Your task to perform on an android device: Go to Reddit.com Image 0: 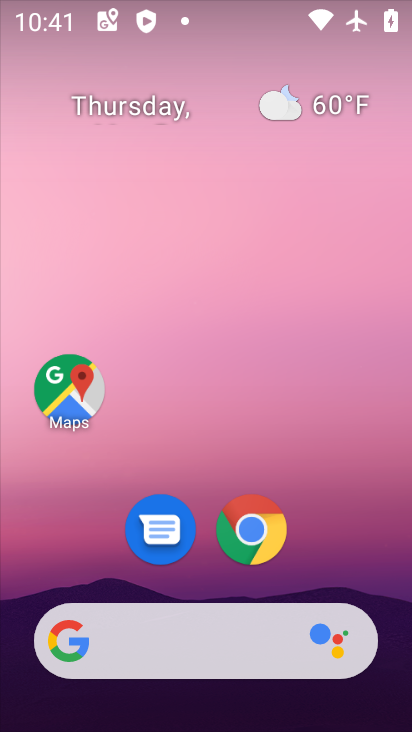
Step 0: drag from (376, 696) to (229, 152)
Your task to perform on an android device: Go to Reddit.com Image 1: 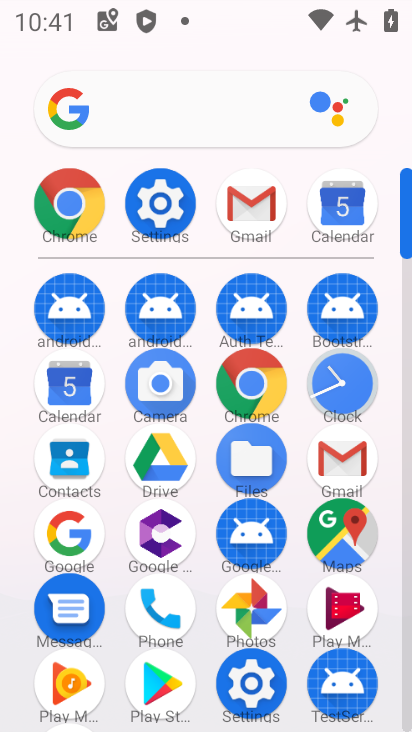
Step 1: click (68, 196)
Your task to perform on an android device: Go to Reddit.com Image 2: 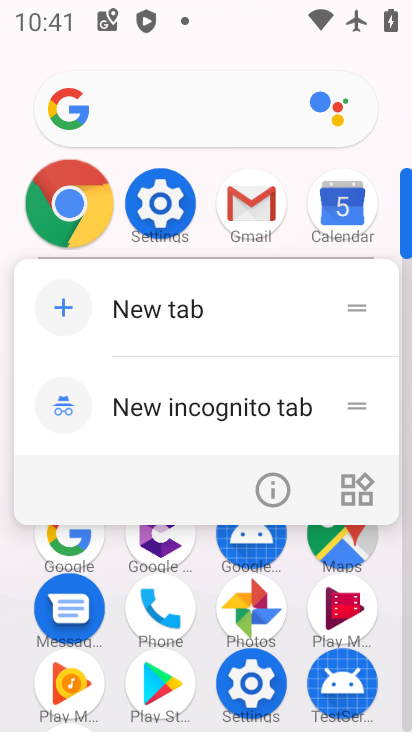
Step 2: click (69, 196)
Your task to perform on an android device: Go to Reddit.com Image 3: 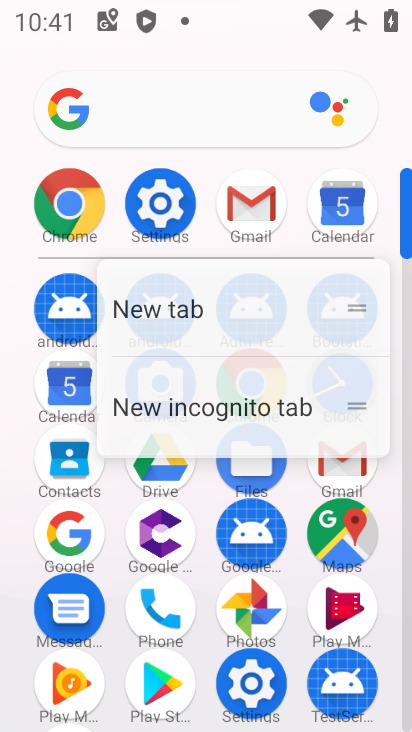
Step 3: click (69, 196)
Your task to perform on an android device: Go to Reddit.com Image 4: 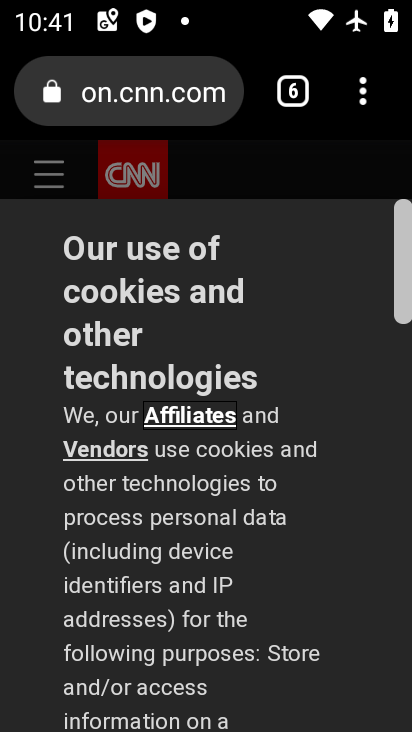
Step 4: drag from (359, 89) to (119, 186)
Your task to perform on an android device: Go to Reddit.com Image 5: 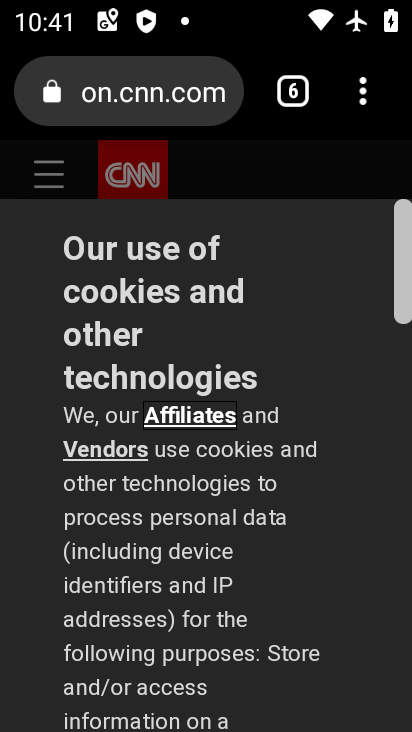
Step 5: click (119, 186)
Your task to perform on an android device: Go to Reddit.com Image 6: 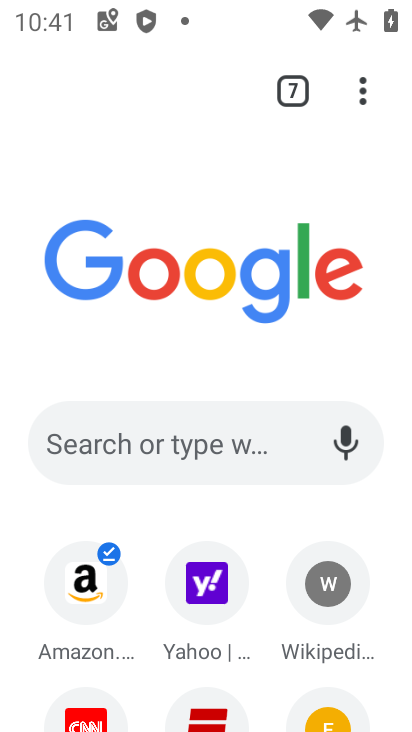
Step 6: drag from (257, 628) to (164, 166)
Your task to perform on an android device: Go to Reddit.com Image 7: 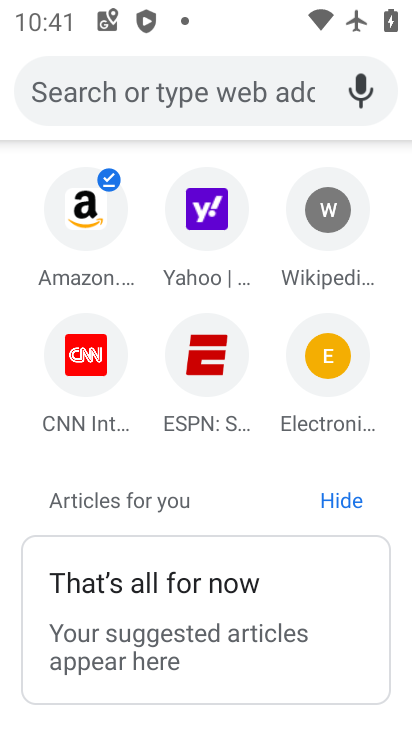
Step 7: drag from (274, 543) to (234, 214)
Your task to perform on an android device: Go to Reddit.com Image 8: 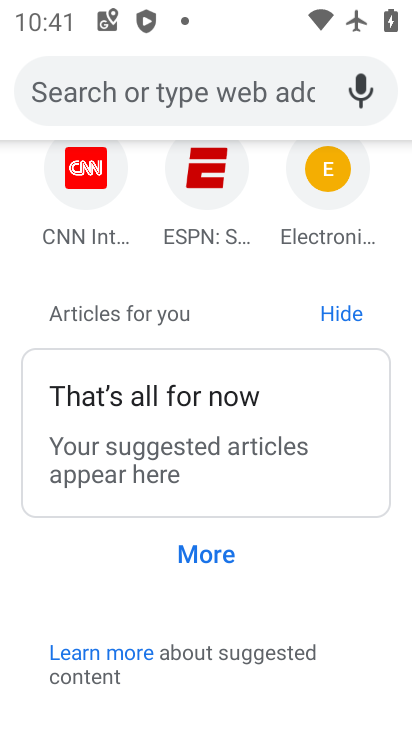
Step 8: drag from (233, 251) to (275, 557)
Your task to perform on an android device: Go to Reddit.com Image 9: 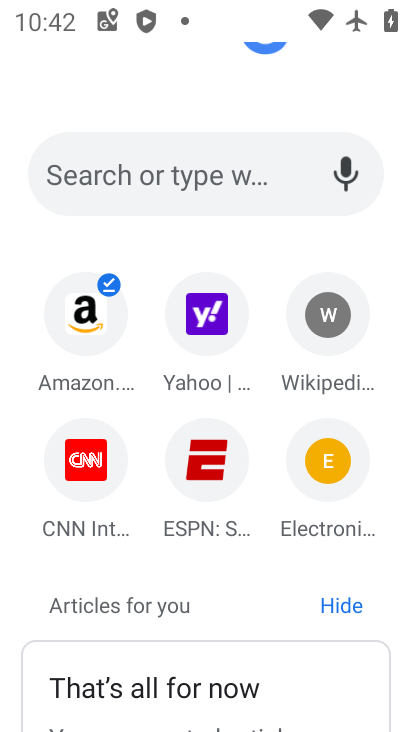
Step 9: click (78, 173)
Your task to perform on an android device: Go to Reddit.com Image 10: 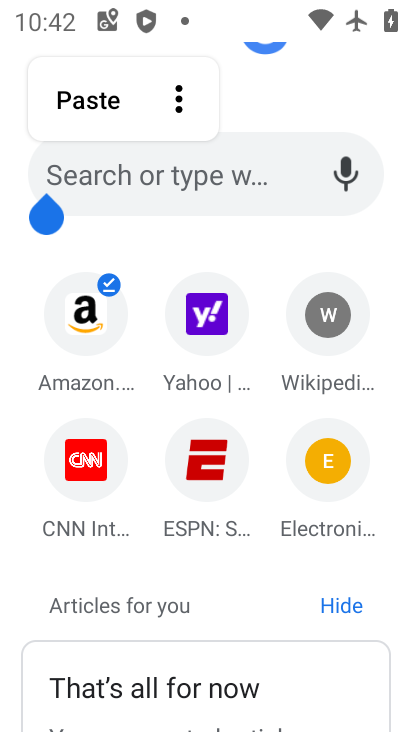
Step 10: click (93, 167)
Your task to perform on an android device: Go to Reddit.com Image 11: 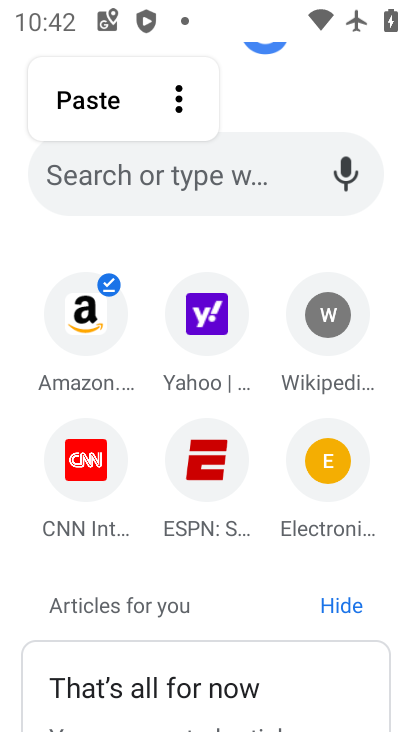
Step 11: type "www.reddit.com"
Your task to perform on an android device: Go to Reddit.com Image 12: 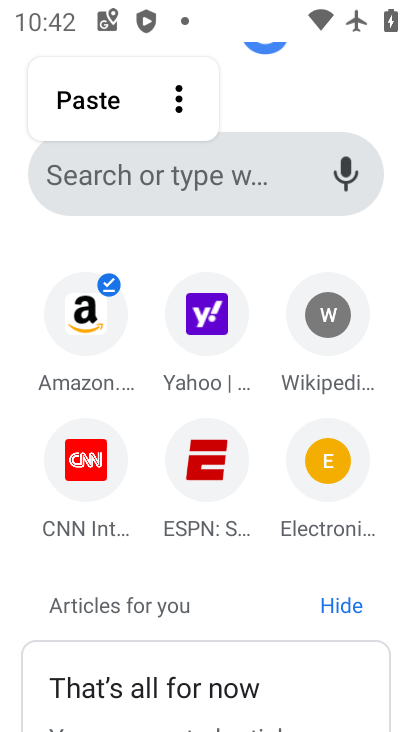
Step 12: click (121, 165)
Your task to perform on an android device: Go to Reddit.com Image 13: 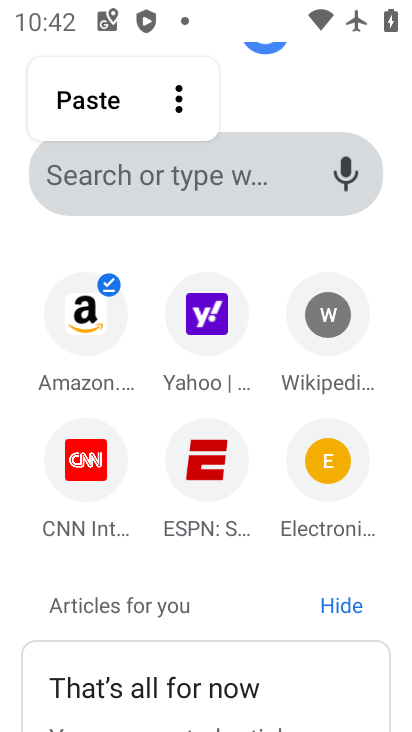
Step 13: click (121, 166)
Your task to perform on an android device: Go to Reddit.com Image 14: 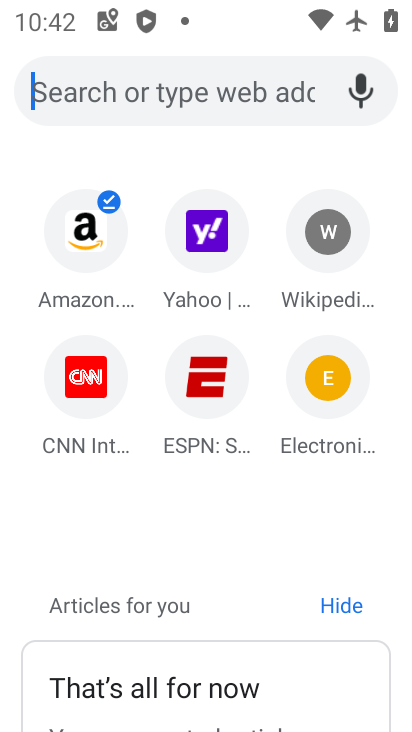
Step 14: click (121, 167)
Your task to perform on an android device: Go to Reddit.com Image 15: 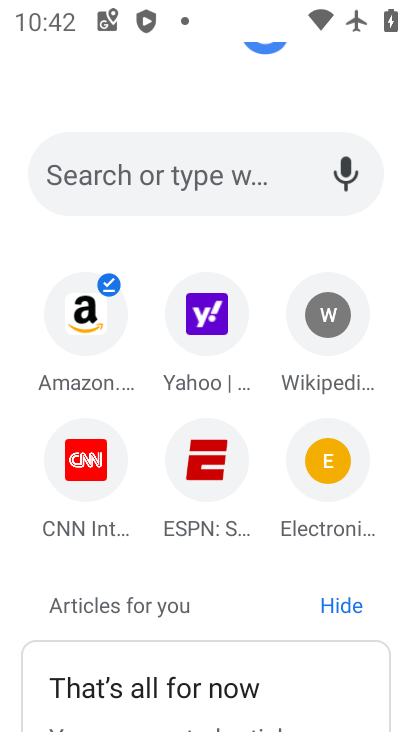
Step 15: type "reddit.com"
Your task to perform on an android device: Go to Reddit.com Image 16: 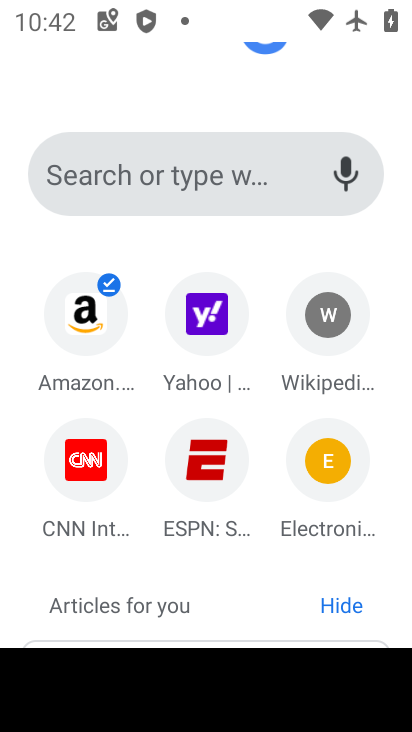
Step 16: click (78, 177)
Your task to perform on an android device: Go to Reddit.com Image 17: 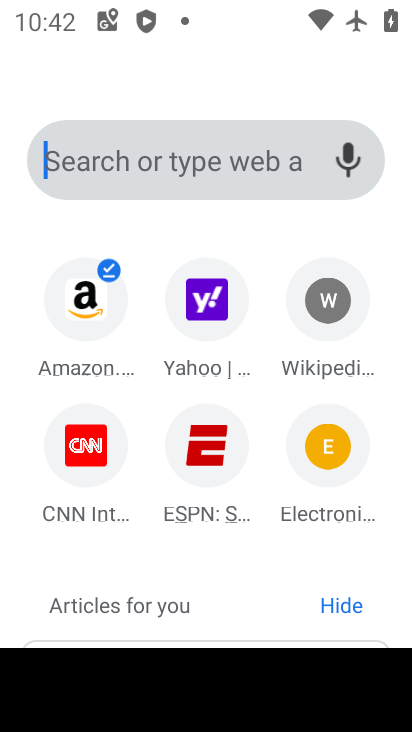
Step 17: click (80, 178)
Your task to perform on an android device: Go to Reddit.com Image 18: 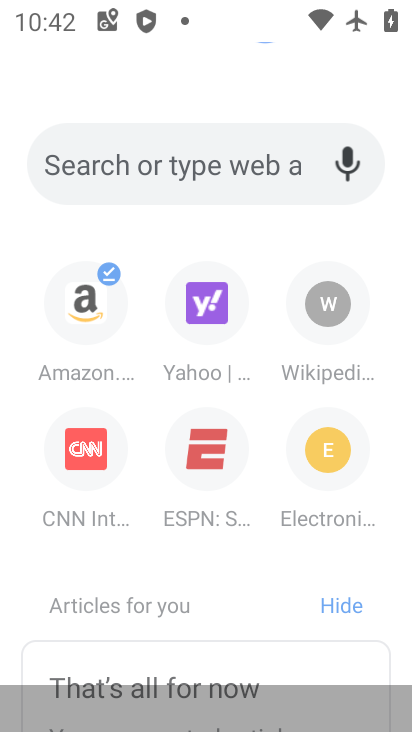
Step 18: click (82, 178)
Your task to perform on an android device: Go to Reddit.com Image 19: 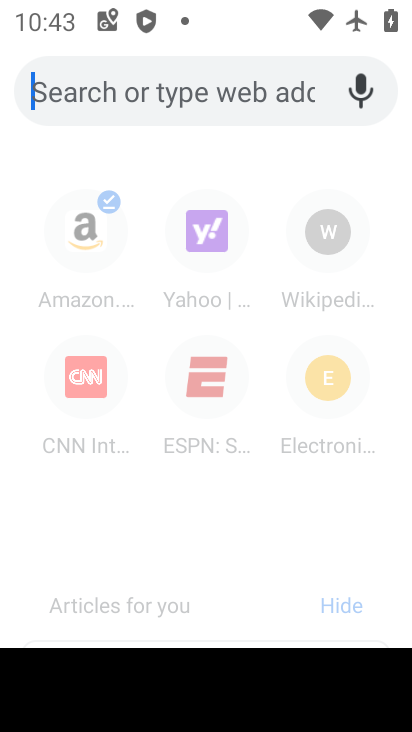
Step 19: type "www.reddit.com"
Your task to perform on an android device: Go to Reddit.com Image 20: 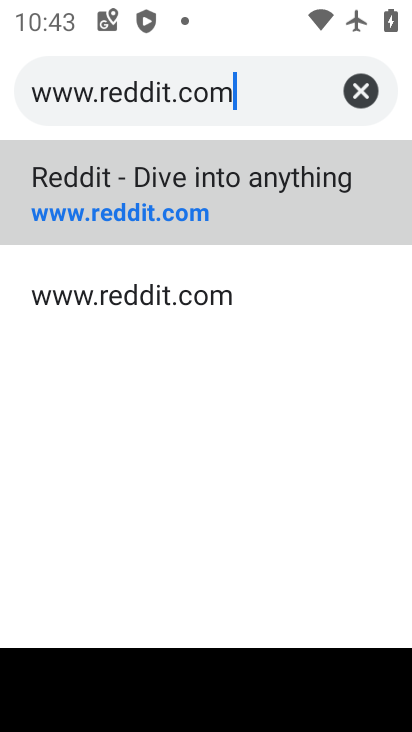
Step 20: click (151, 219)
Your task to perform on an android device: Go to Reddit.com Image 21: 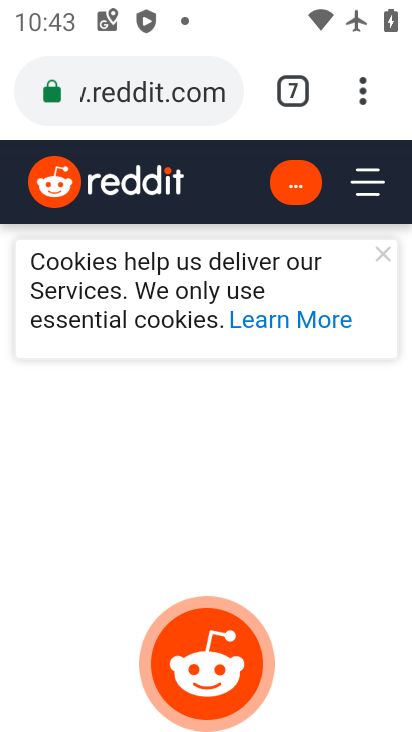
Step 21: task complete